Your task to perform on an android device: Install the Google app Image 0: 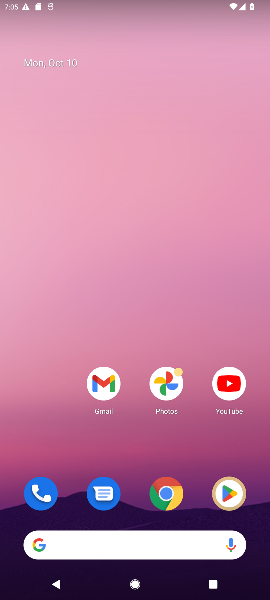
Step 0: drag from (132, 324) to (182, 22)
Your task to perform on an android device: Install the Google app Image 1: 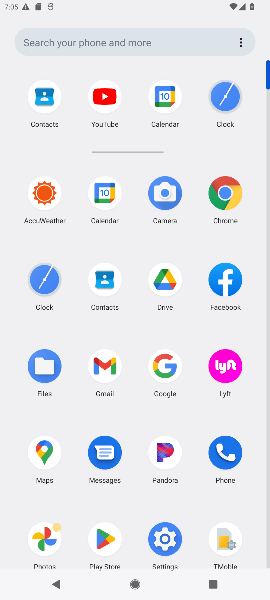
Step 1: click (160, 384)
Your task to perform on an android device: Install the Google app Image 2: 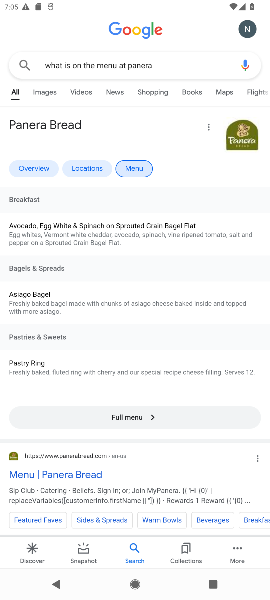
Step 2: task complete